Your task to perform on an android device: Open battery settings Image 0: 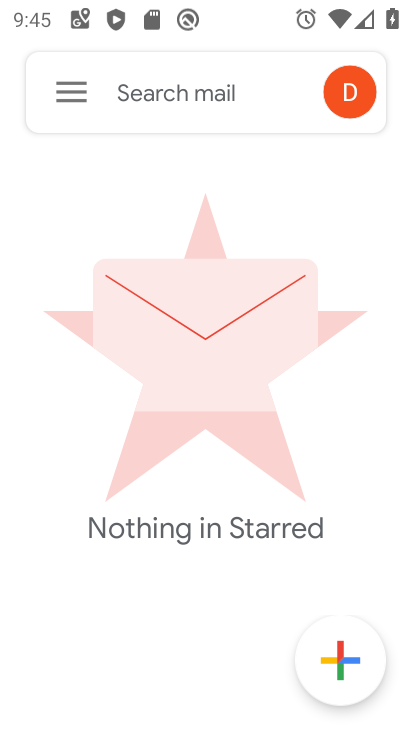
Step 0: press home button
Your task to perform on an android device: Open battery settings Image 1: 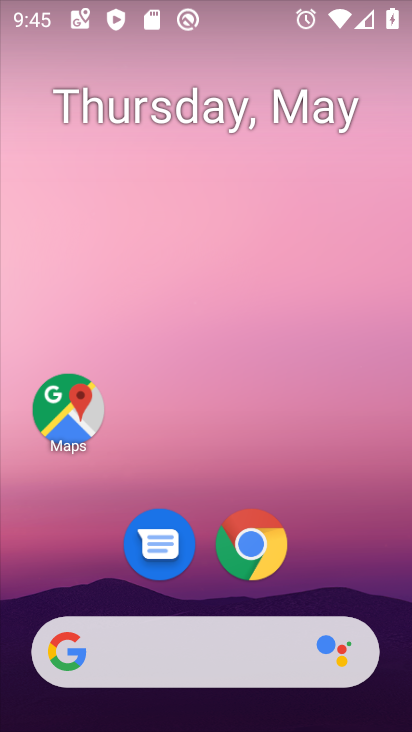
Step 1: drag from (283, 587) to (301, 140)
Your task to perform on an android device: Open battery settings Image 2: 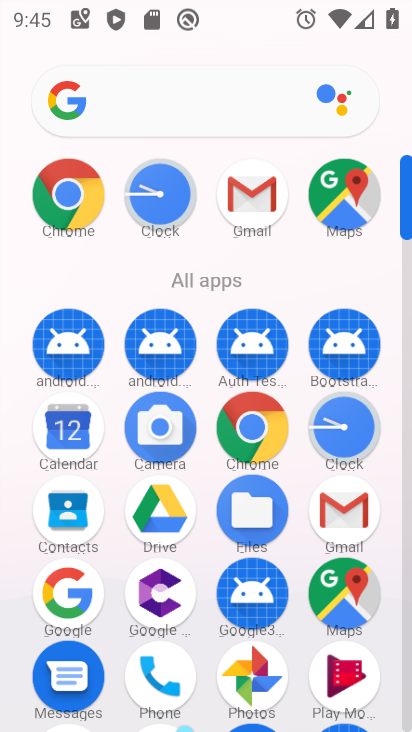
Step 2: drag from (114, 614) to (170, 251)
Your task to perform on an android device: Open battery settings Image 3: 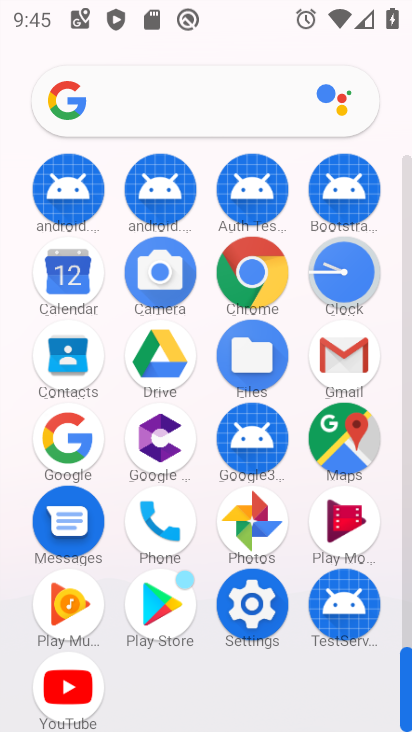
Step 3: click (259, 658)
Your task to perform on an android device: Open battery settings Image 4: 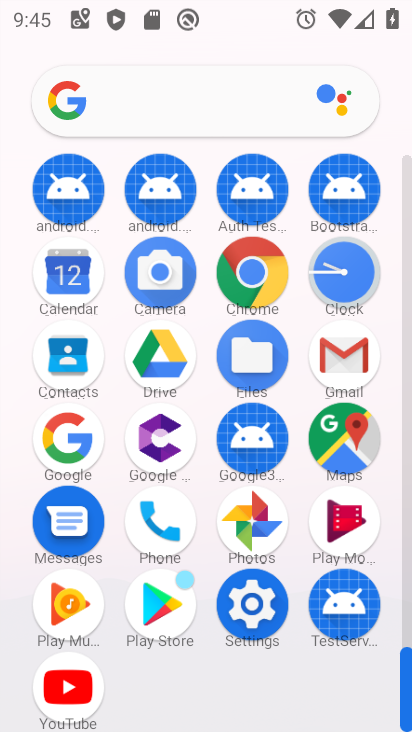
Step 4: click (250, 606)
Your task to perform on an android device: Open battery settings Image 5: 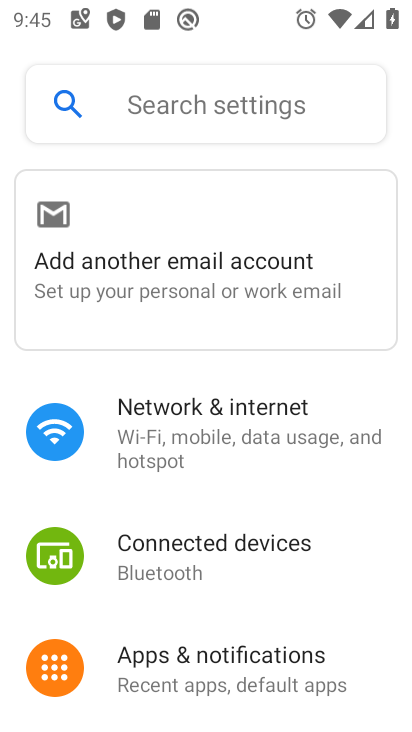
Step 5: drag from (239, 523) to (312, 251)
Your task to perform on an android device: Open battery settings Image 6: 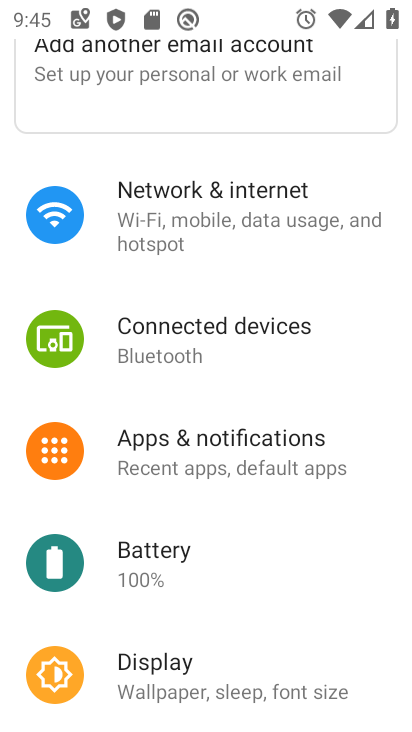
Step 6: click (155, 587)
Your task to perform on an android device: Open battery settings Image 7: 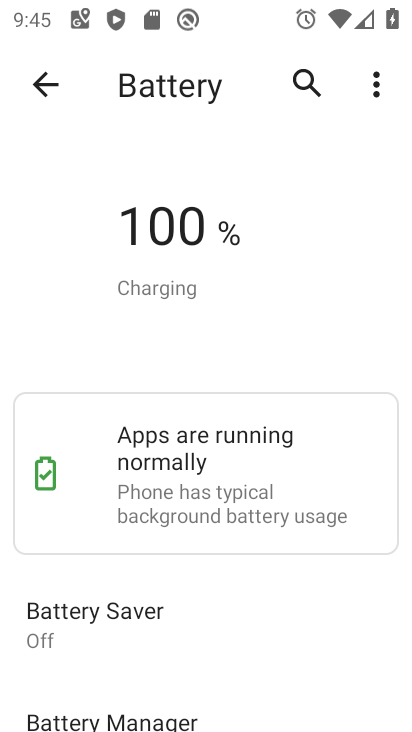
Step 7: task complete